Your task to perform on an android device: read, delete, or share a saved page in the chrome app Image 0: 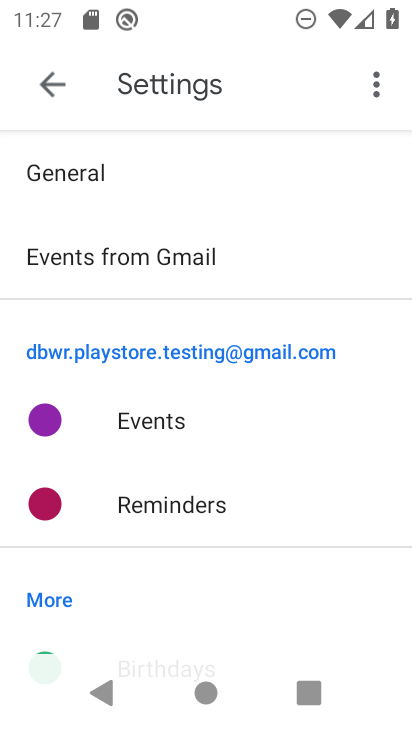
Step 0: press home button
Your task to perform on an android device: read, delete, or share a saved page in the chrome app Image 1: 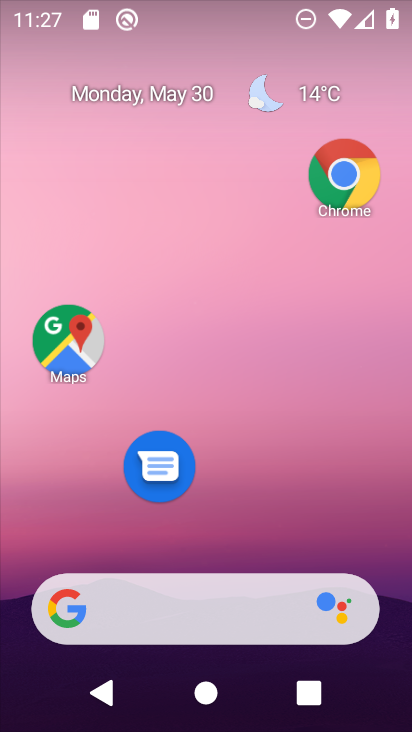
Step 1: click (331, 173)
Your task to perform on an android device: read, delete, or share a saved page in the chrome app Image 2: 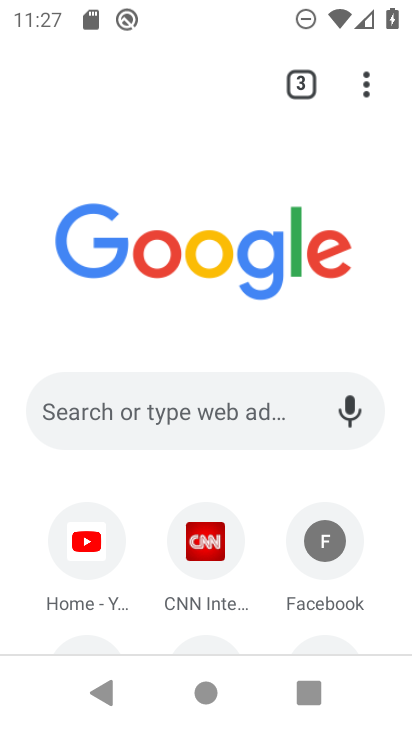
Step 2: click (299, 172)
Your task to perform on an android device: read, delete, or share a saved page in the chrome app Image 3: 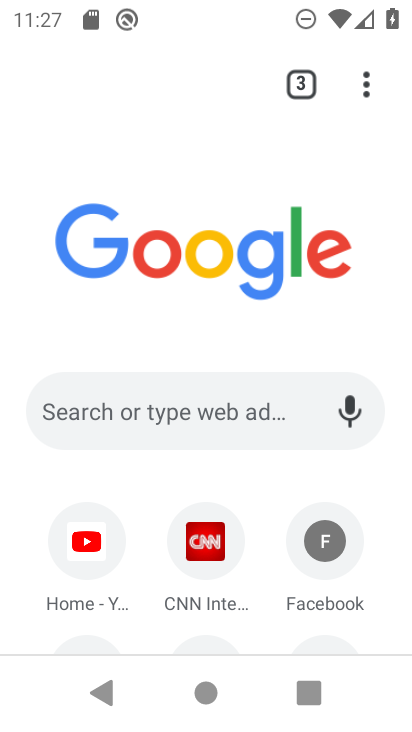
Step 3: click (355, 80)
Your task to perform on an android device: read, delete, or share a saved page in the chrome app Image 4: 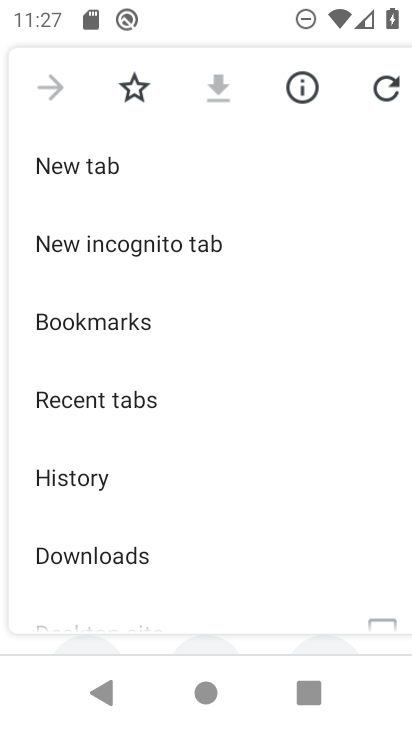
Step 4: drag from (128, 516) to (125, 291)
Your task to perform on an android device: read, delete, or share a saved page in the chrome app Image 5: 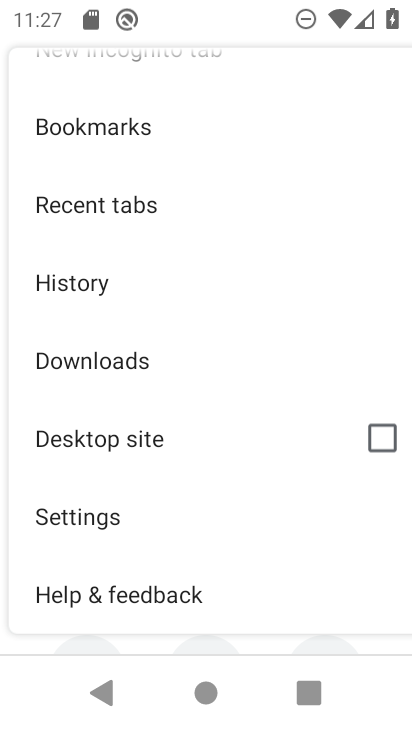
Step 5: click (73, 500)
Your task to perform on an android device: read, delete, or share a saved page in the chrome app Image 6: 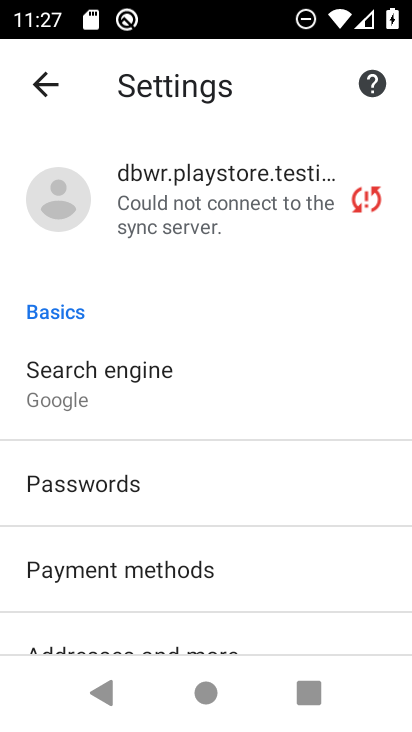
Step 6: drag from (217, 573) to (210, 230)
Your task to perform on an android device: read, delete, or share a saved page in the chrome app Image 7: 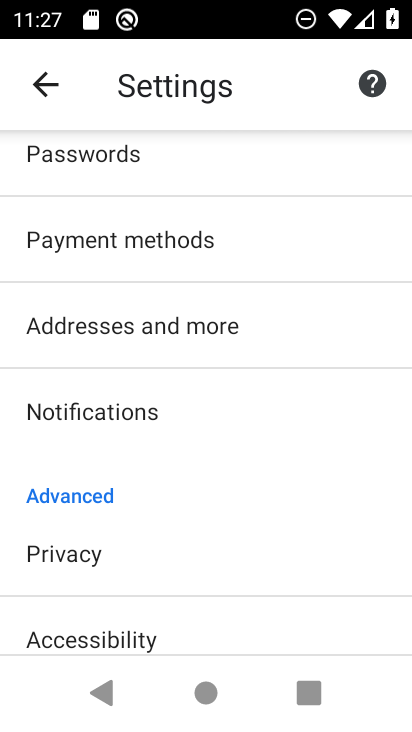
Step 7: drag from (164, 462) to (177, 208)
Your task to perform on an android device: read, delete, or share a saved page in the chrome app Image 8: 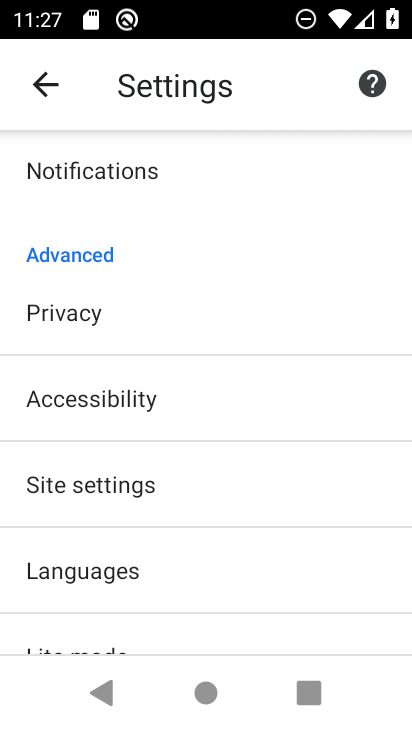
Step 8: drag from (145, 508) to (154, 277)
Your task to perform on an android device: read, delete, or share a saved page in the chrome app Image 9: 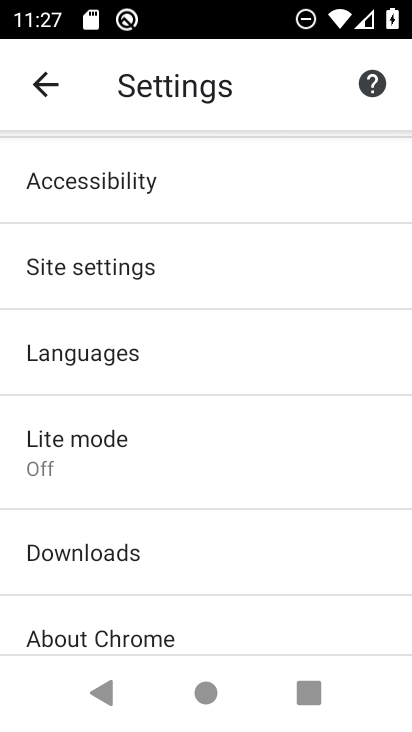
Step 9: click (169, 279)
Your task to perform on an android device: read, delete, or share a saved page in the chrome app Image 10: 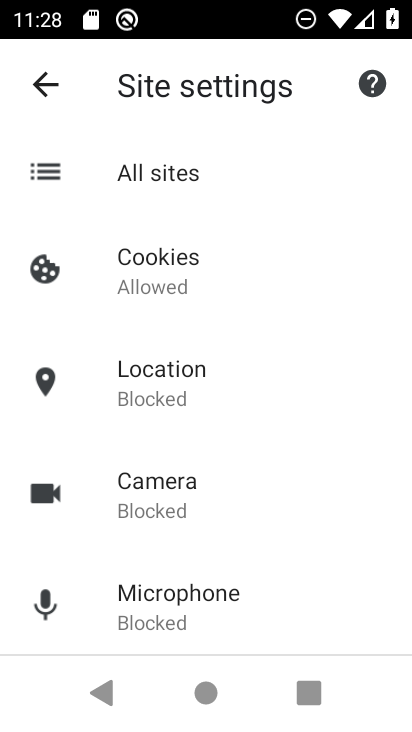
Step 10: task complete